Your task to perform on an android device: change the clock style Image 0: 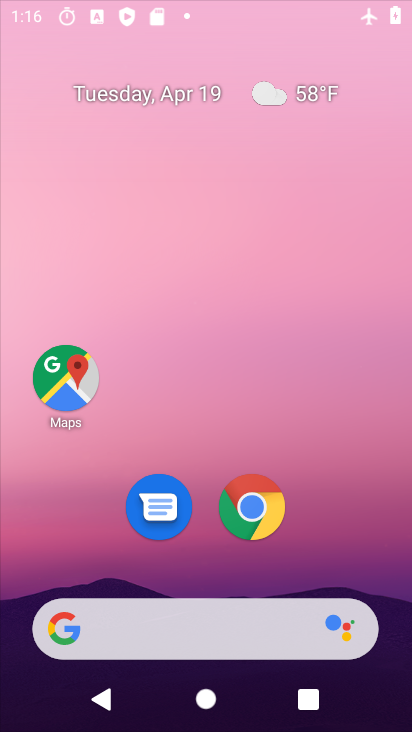
Step 0: drag from (216, 520) to (218, 151)
Your task to perform on an android device: change the clock style Image 1: 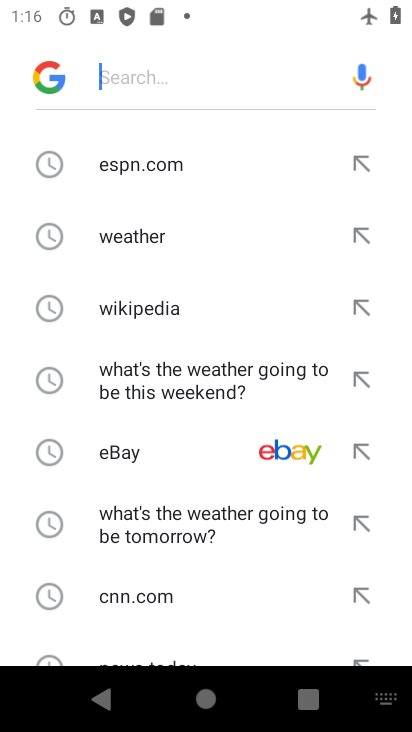
Step 1: press home button
Your task to perform on an android device: change the clock style Image 2: 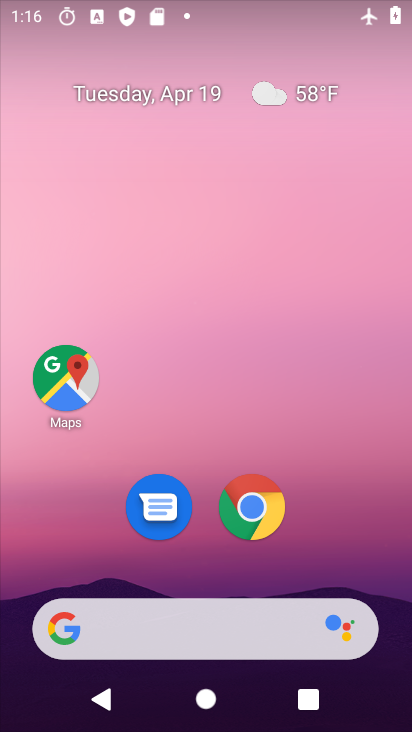
Step 2: drag from (210, 572) to (173, 130)
Your task to perform on an android device: change the clock style Image 3: 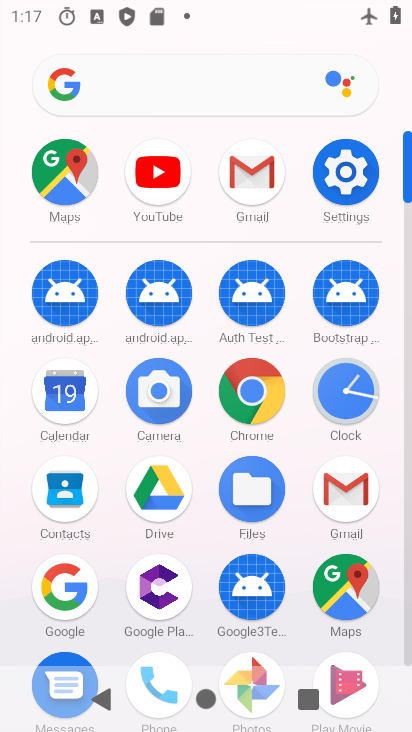
Step 3: click (342, 396)
Your task to perform on an android device: change the clock style Image 4: 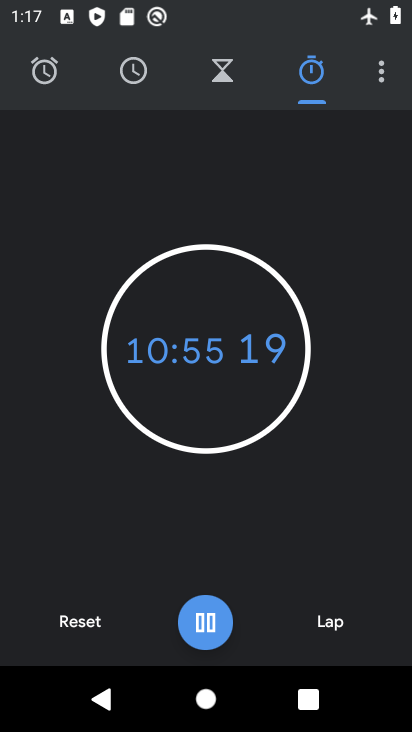
Step 4: click (376, 76)
Your task to perform on an android device: change the clock style Image 5: 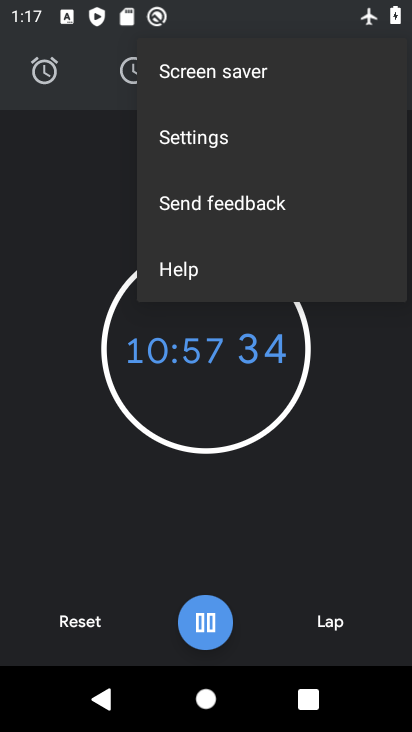
Step 5: click (216, 124)
Your task to perform on an android device: change the clock style Image 6: 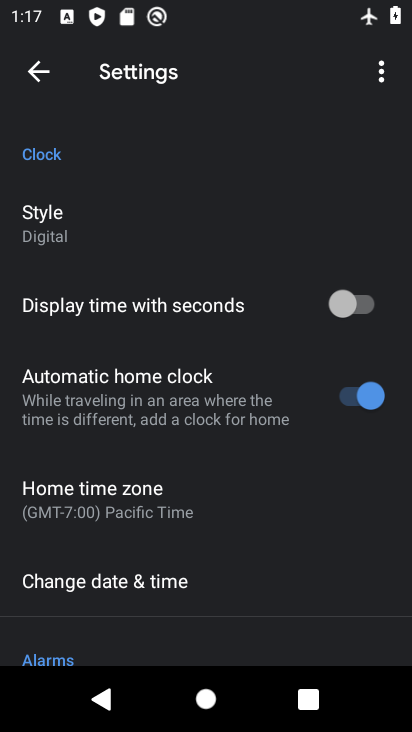
Step 6: click (147, 222)
Your task to perform on an android device: change the clock style Image 7: 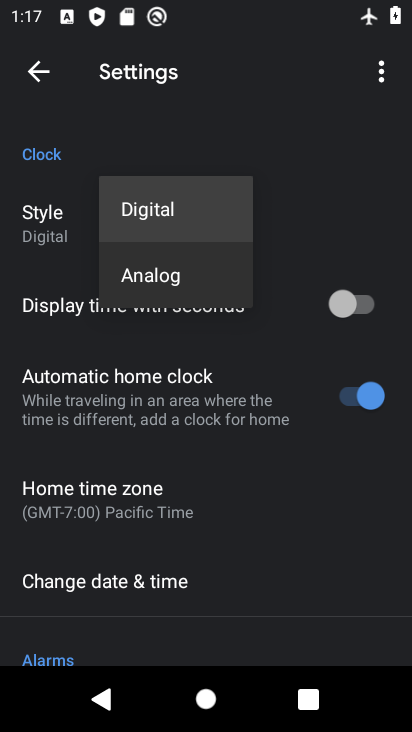
Step 7: click (199, 281)
Your task to perform on an android device: change the clock style Image 8: 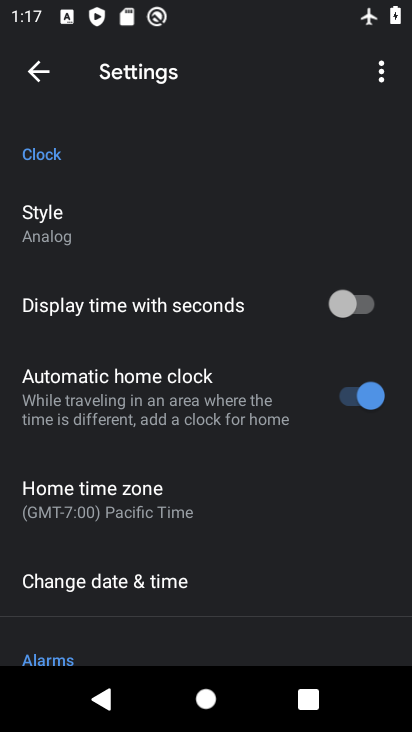
Step 8: task complete